Your task to perform on an android device: change your default location settings in chrome Image 0: 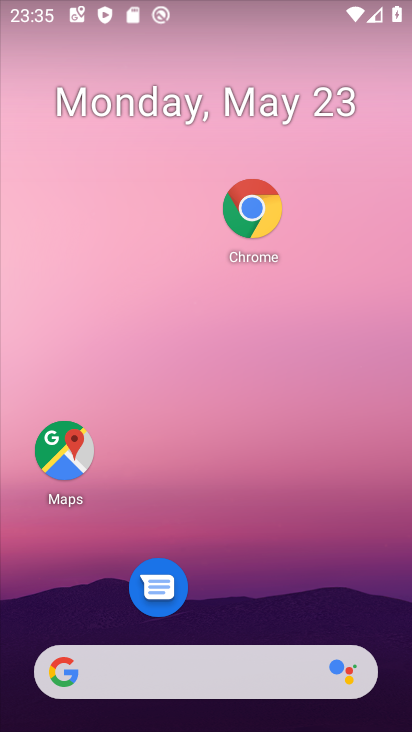
Step 0: drag from (313, 698) to (256, 298)
Your task to perform on an android device: change your default location settings in chrome Image 1: 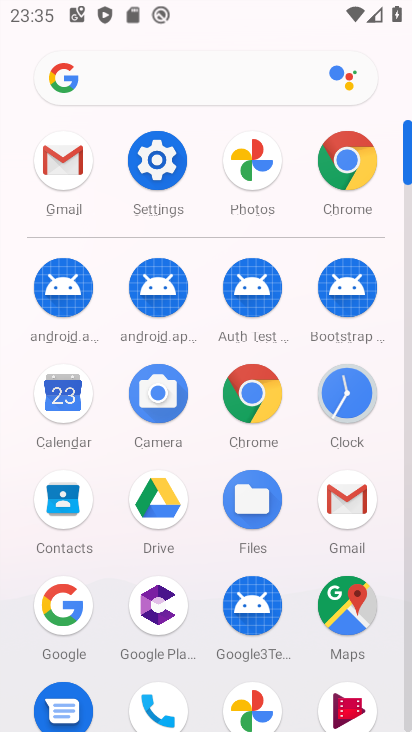
Step 1: click (344, 169)
Your task to perform on an android device: change your default location settings in chrome Image 2: 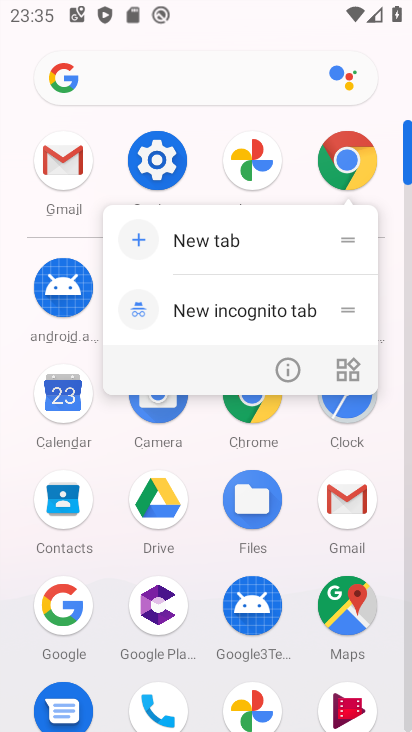
Step 2: click (215, 250)
Your task to perform on an android device: change your default location settings in chrome Image 3: 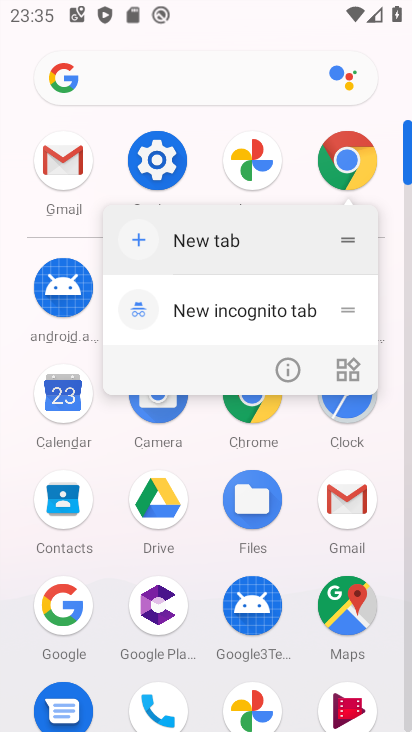
Step 3: click (213, 249)
Your task to perform on an android device: change your default location settings in chrome Image 4: 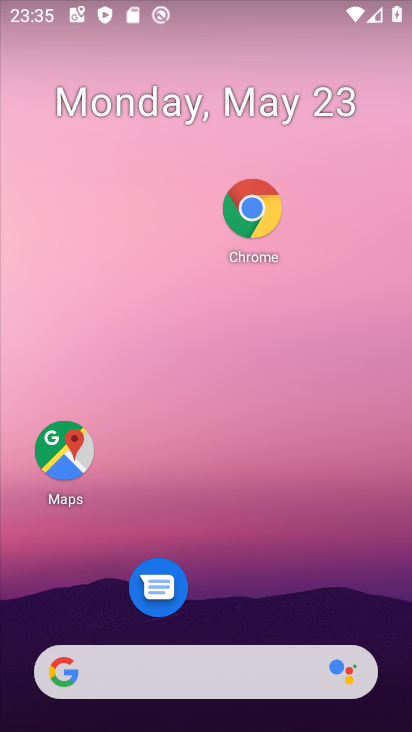
Step 4: drag from (258, 582) to (181, 68)
Your task to perform on an android device: change your default location settings in chrome Image 5: 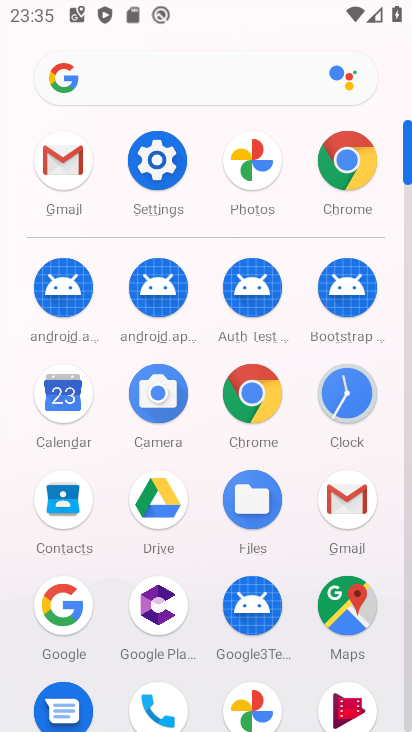
Step 5: click (329, 161)
Your task to perform on an android device: change your default location settings in chrome Image 6: 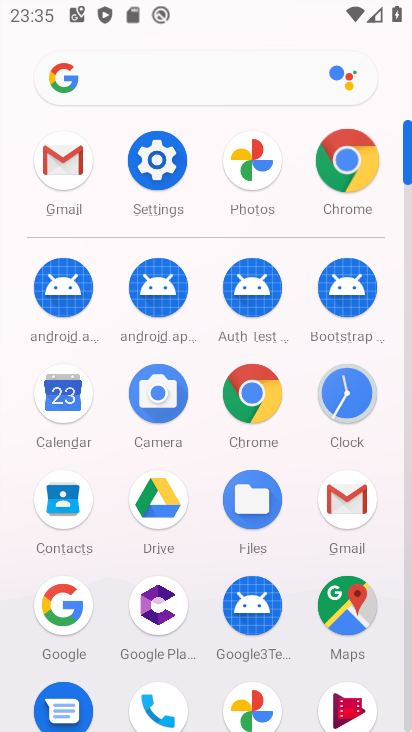
Step 6: click (330, 161)
Your task to perform on an android device: change your default location settings in chrome Image 7: 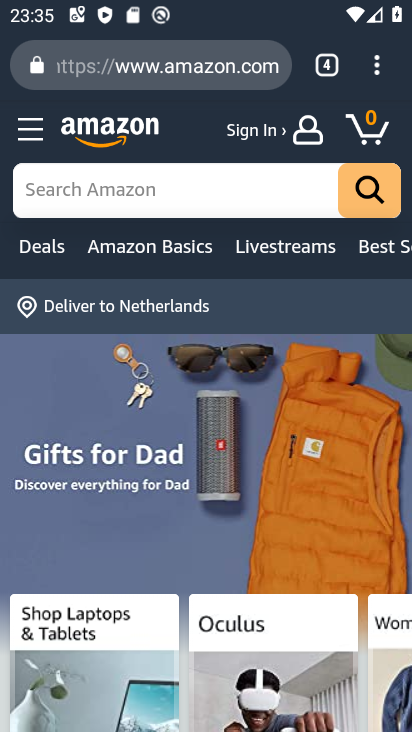
Step 7: drag from (375, 67) to (143, 637)
Your task to perform on an android device: change your default location settings in chrome Image 8: 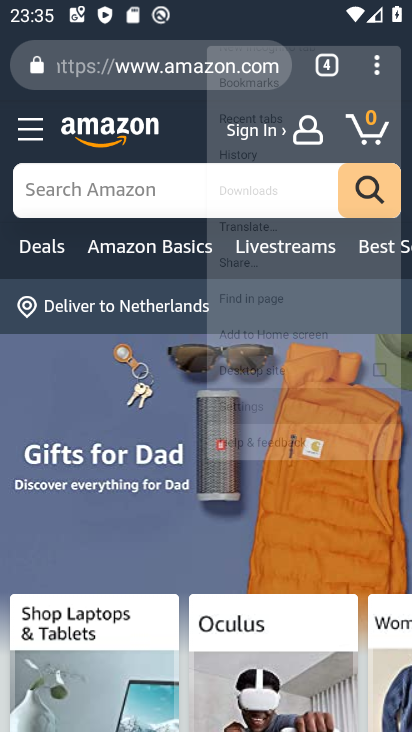
Step 8: click (151, 636)
Your task to perform on an android device: change your default location settings in chrome Image 9: 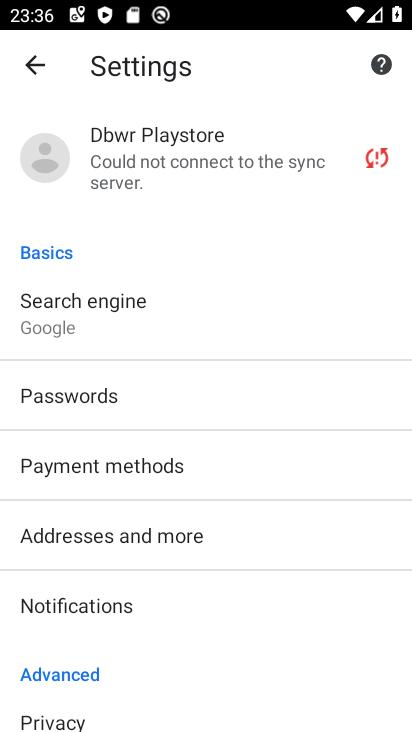
Step 9: drag from (188, 281) to (165, 128)
Your task to perform on an android device: change your default location settings in chrome Image 10: 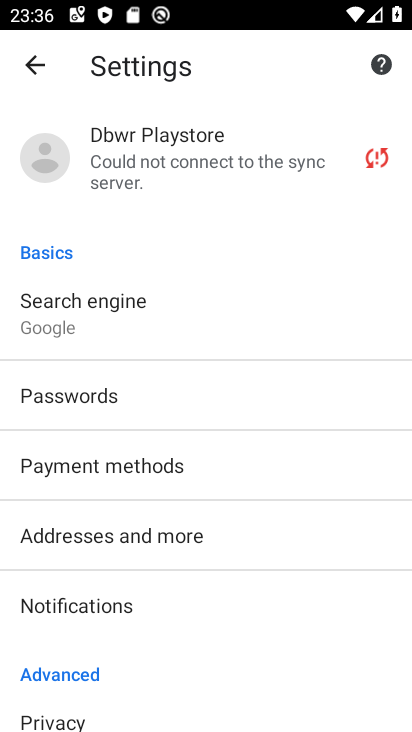
Step 10: drag from (117, 480) to (62, 95)
Your task to perform on an android device: change your default location settings in chrome Image 11: 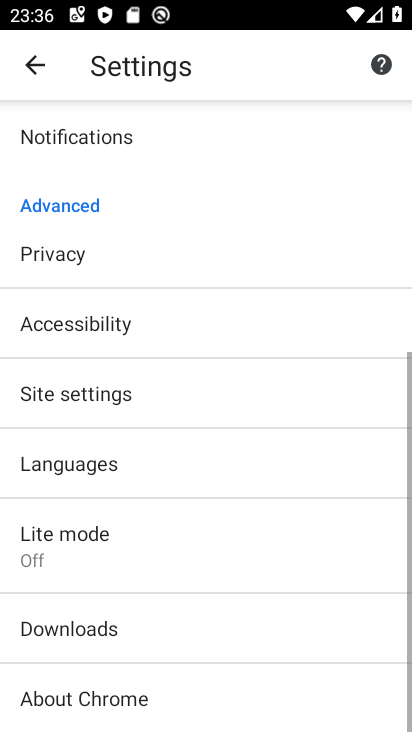
Step 11: drag from (38, 529) to (28, 145)
Your task to perform on an android device: change your default location settings in chrome Image 12: 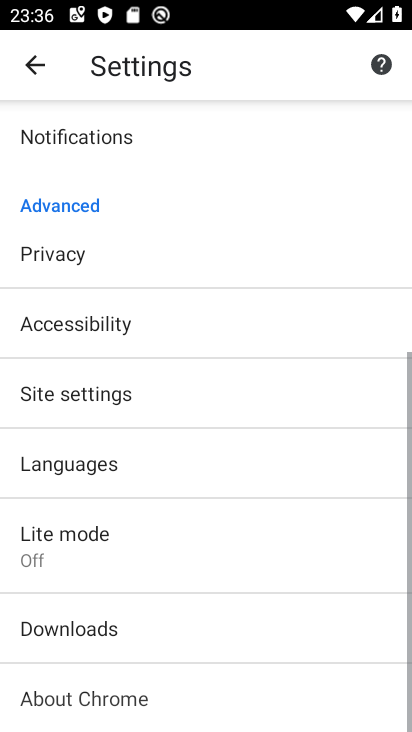
Step 12: drag from (98, 531) to (116, 153)
Your task to perform on an android device: change your default location settings in chrome Image 13: 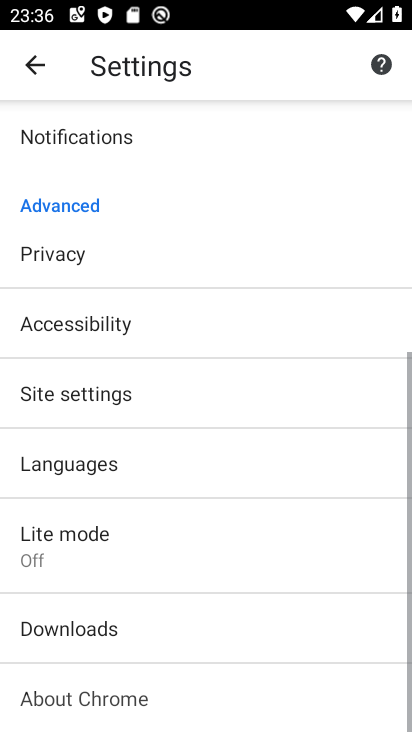
Step 13: drag from (50, 565) to (52, 149)
Your task to perform on an android device: change your default location settings in chrome Image 14: 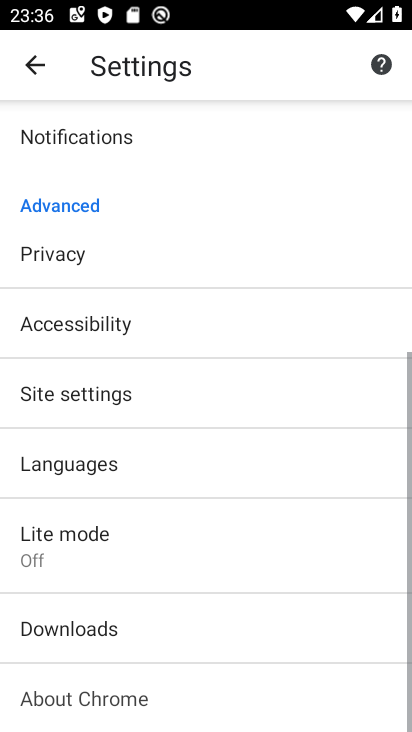
Step 14: drag from (58, 693) to (70, 214)
Your task to perform on an android device: change your default location settings in chrome Image 15: 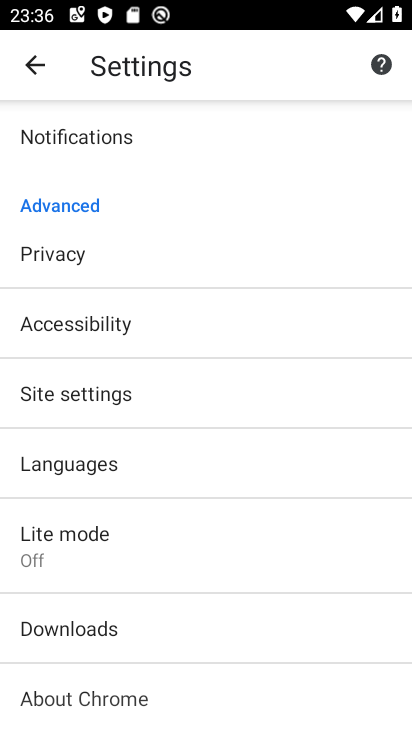
Step 15: drag from (136, 647) to (118, 167)
Your task to perform on an android device: change your default location settings in chrome Image 16: 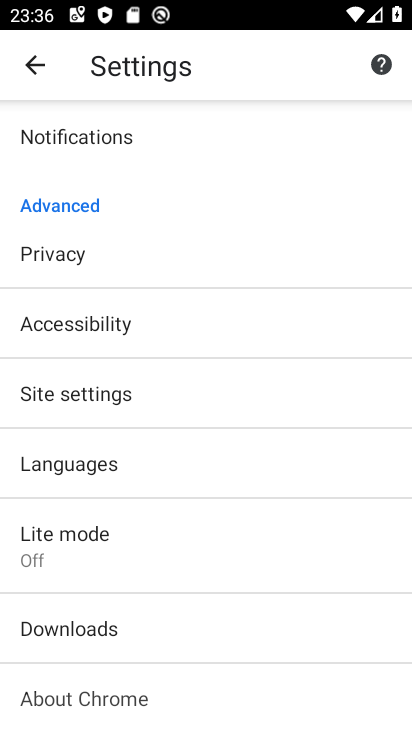
Step 16: drag from (163, 639) to (148, 313)
Your task to perform on an android device: change your default location settings in chrome Image 17: 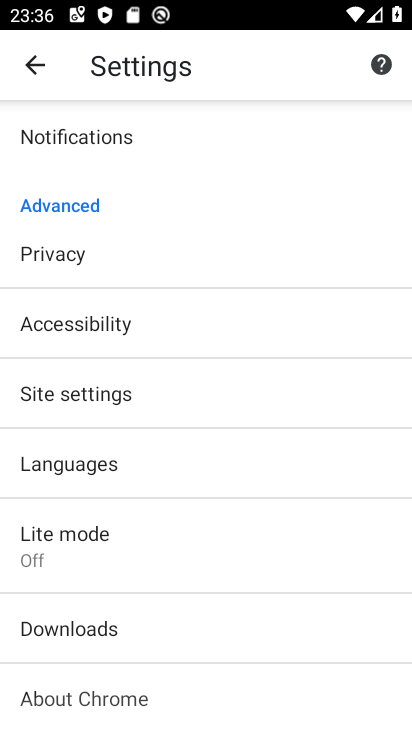
Step 17: drag from (143, 642) to (130, 333)
Your task to perform on an android device: change your default location settings in chrome Image 18: 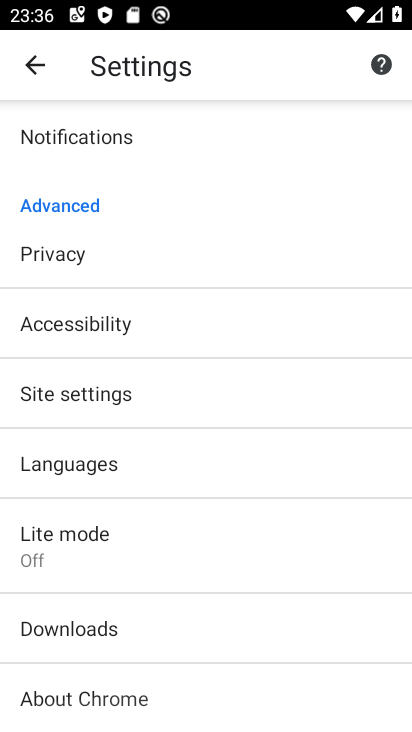
Step 18: drag from (129, 362) to (94, 35)
Your task to perform on an android device: change your default location settings in chrome Image 19: 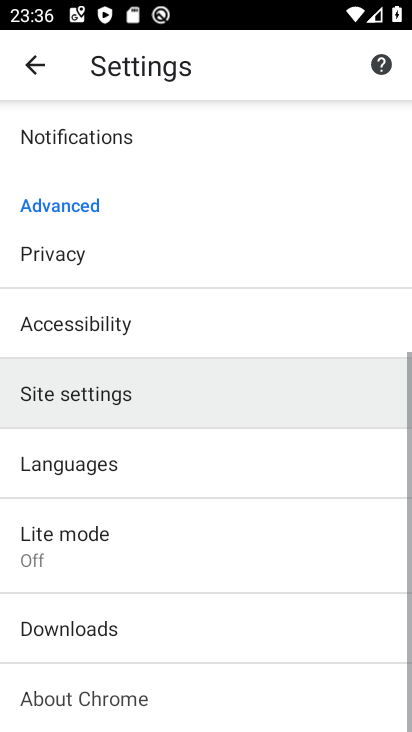
Step 19: drag from (82, 676) to (79, 309)
Your task to perform on an android device: change your default location settings in chrome Image 20: 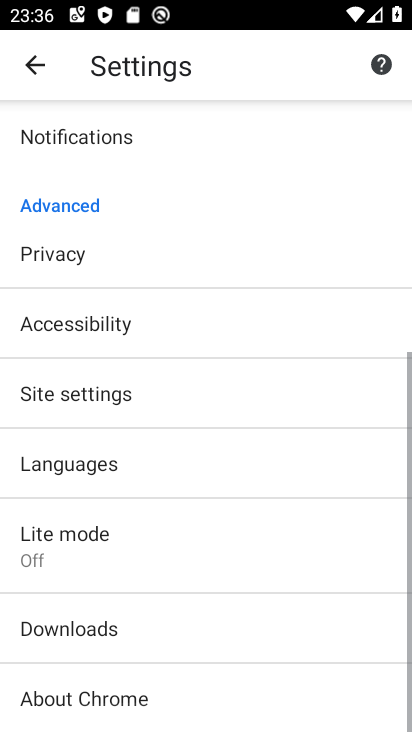
Step 20: drag from (159, 657) to (139, 132)
Your task to perform on an android device: change your default location settings in chrome Image 21: 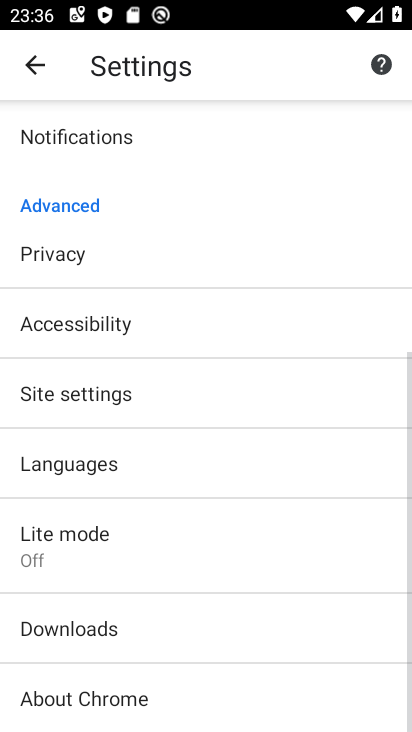
Step 21: click (40, 68)
Your task to perform on an android device: change your default location settings in chrome Image 22: 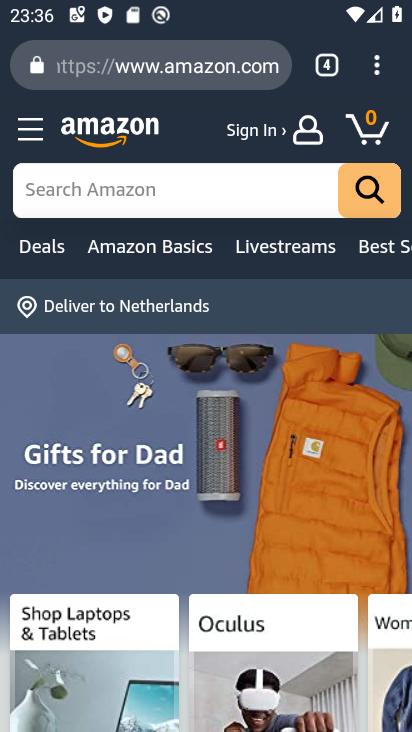
Step 22: click (384, 64)
Your task to perform on an android device: change your default location settings in chrome Image 23: 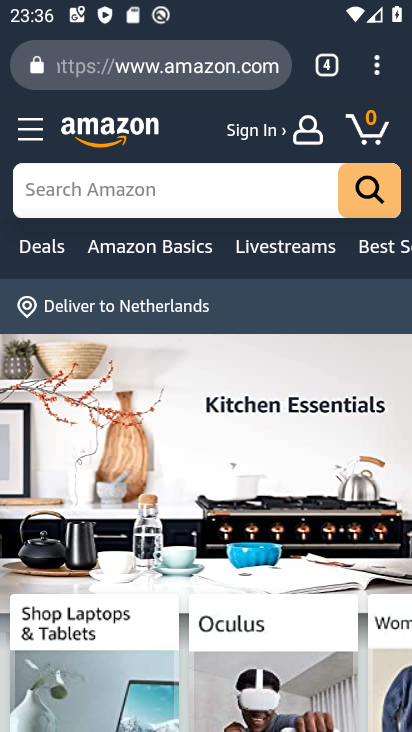
Step 23: click (368, 68)
Your task to perform on an android device: change your default location settings in chrome Image 24: 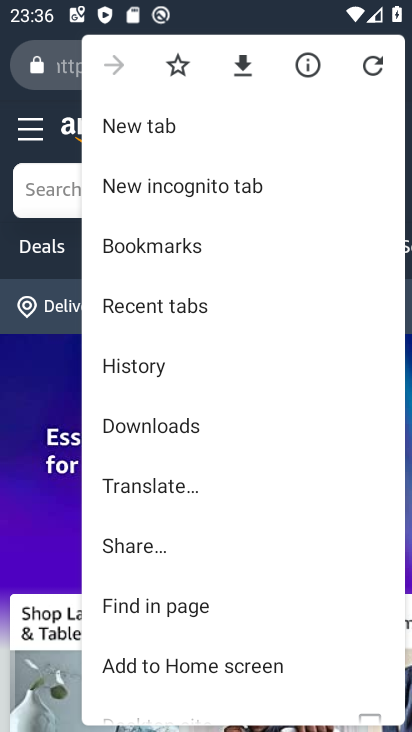
Step 24: drag from (171, 615) to (151, 340)
Your task to perform on an android device: change your default location settings in chrome Image 25: 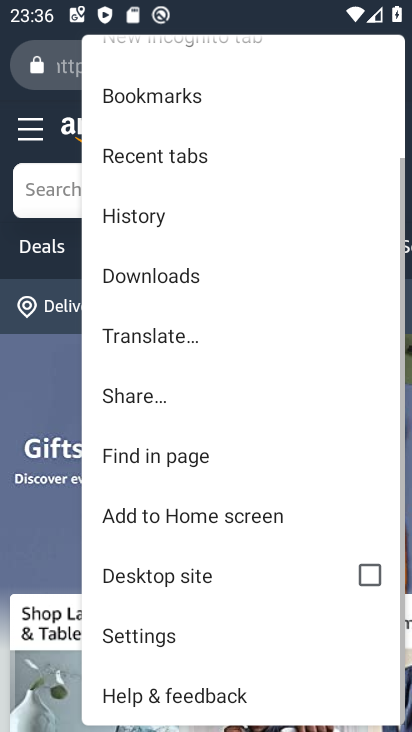
Step 25: click (135, 639)
Your task to perform on an android device: change your default location settings in chrome Image 26: 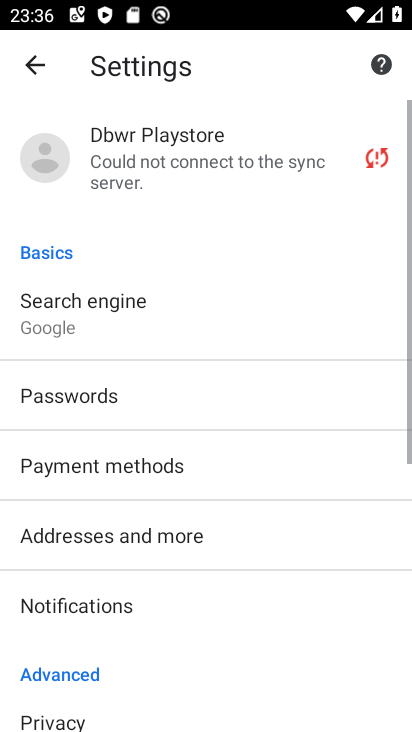
Step 26: drag from (205, 453) to (108, 108)
Your task to perform on an android device: change your default location settings in chrome Image 27: 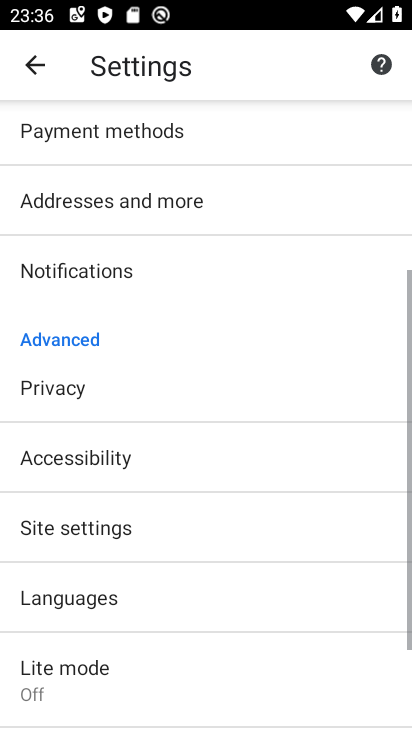
Step 27: drag from (145, 377) to (33, 30)
Your task to perform on an android device: change your default location settings in chrome Image 28: 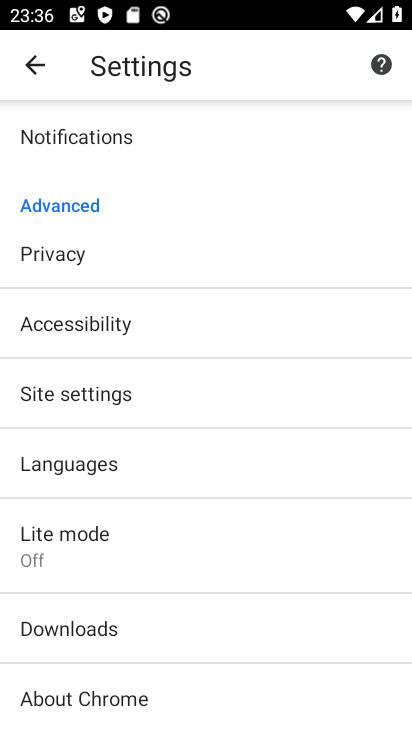
Step 28: click (63, 412)
Your task to perform on an android device: change your default location settings in chrome Image 29: 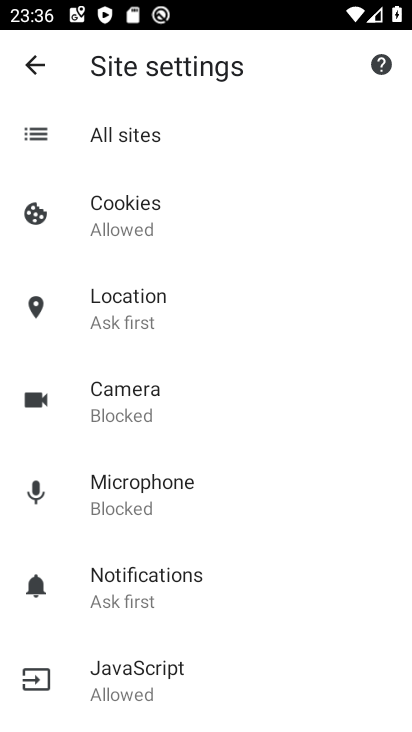
Step 29: click (103, 311)
Your task to perform on an android device: change your default location settings in chrome Image 30: 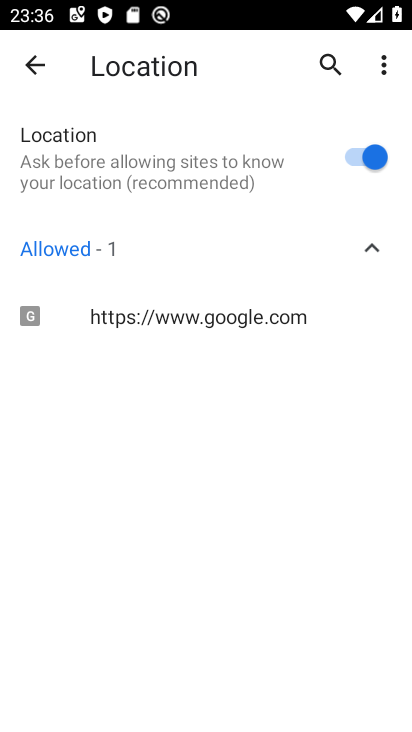
Step 30: click (377, 157)
Your task to perform on an android device: change your default location settings in chrome Image 31: 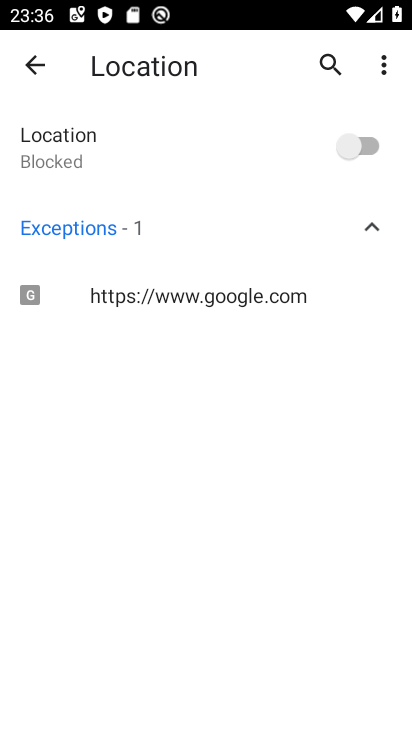
Step 31: task complete